Your task to perform on an android device: Open calendar and show me the third week of next month Image 0: 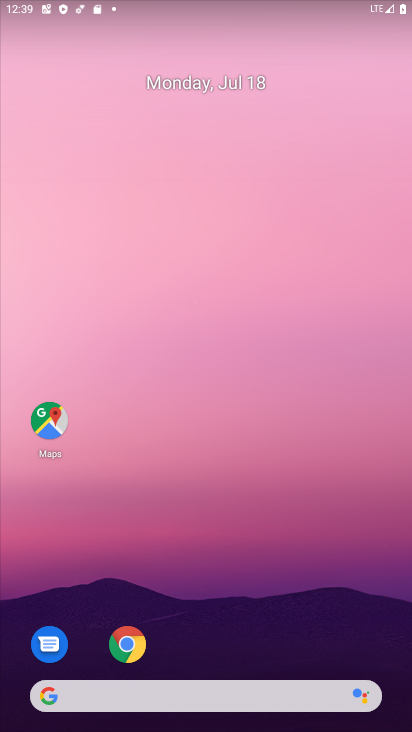
Step 0: press home button
Your task to perform on an android device: Open calendar and show me the third week of next month Image 1: 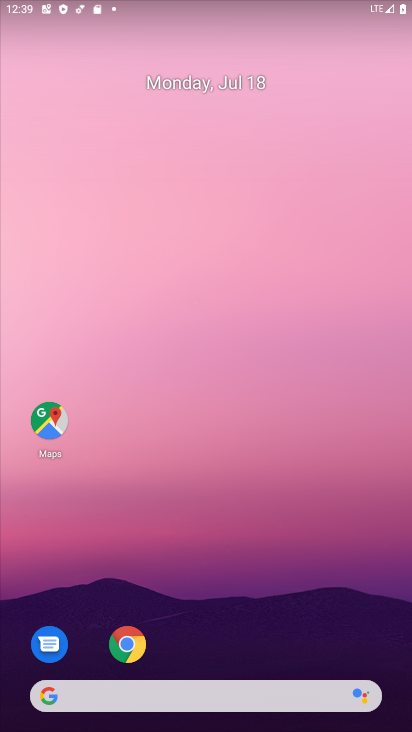
Step 1: drag from (214, 665) to (250, 24)
Your task to perform on an android device: Open calendar and show me the third week of next month Image 2: 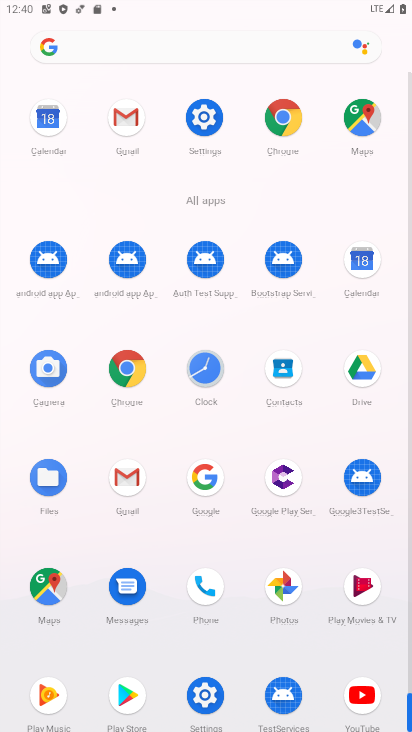
Step 2: click (366, 266)
Your task to perform on an android device: Open calendar and show me the third week of next month Image 3: 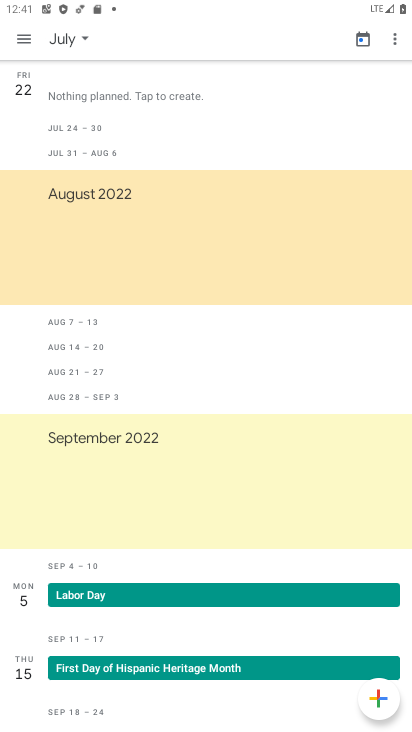
Step 3: click (20, 41)
Your task to perform on an android device: Open calendar and show me the third week of next month Image 4: 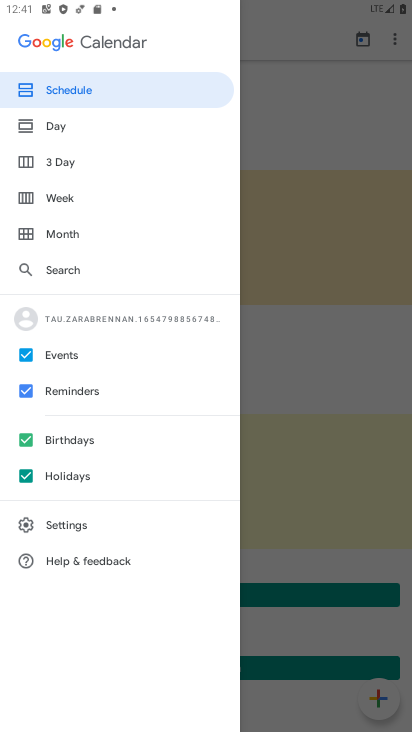
Step 4: click (67, 201)
Your task to perform on an android device: Open calendar and show me the third week of next month Image 5: 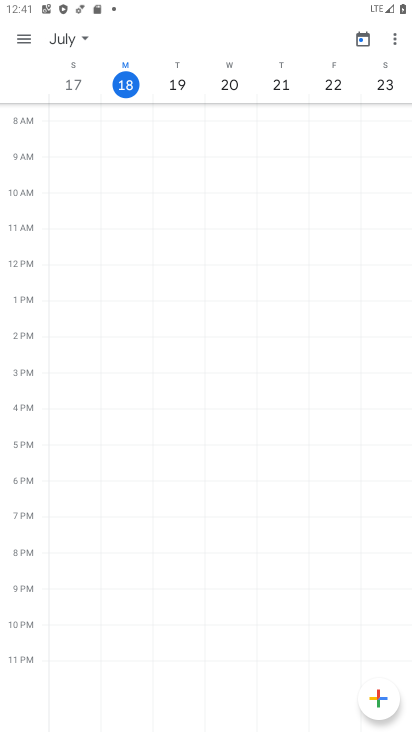
Step 5: click (76, 45)
Your task to perform on an android device: Open calendar and show me the third week of next month Image 6: 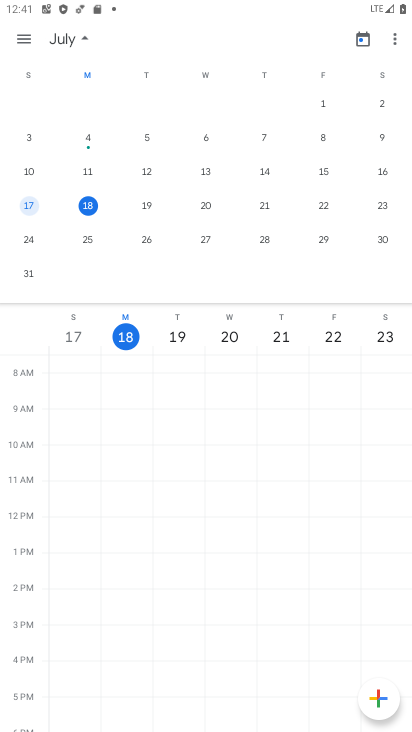
Step 6: drag from (360, 197) to (5, 197)
Your task to perform on an android device: Open calendar and show me the third week of next month Image 7: 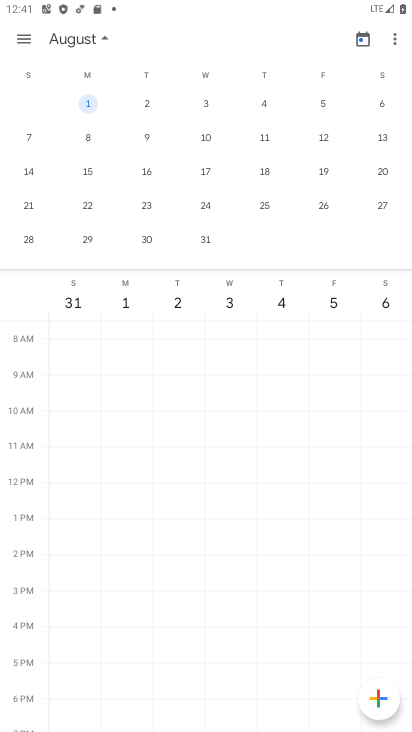
Step 7: click (28, 170)
Your task to perform on an android device: Open calendar and show me the third week of next month Image 8: 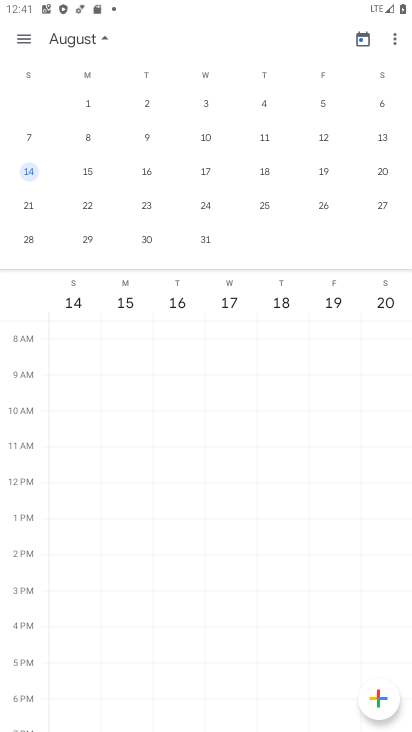
Step 8: click (103, 38)
Your task to perform on an android device: Open calendar and show me the third week of next month Image 9: 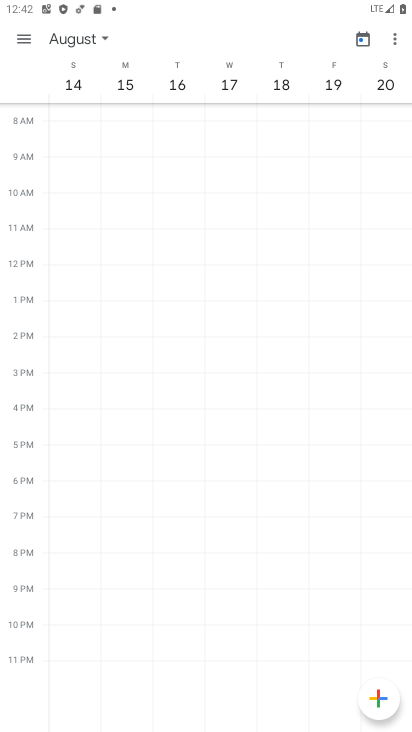
Step 9: task complete